Your task to perform on an android device: turn pop-ups off in chrome Image 0: 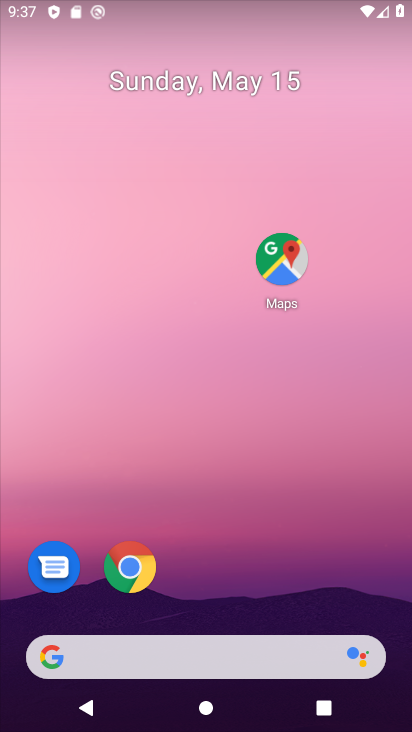
Step 0: click (129, 566)
Your task to perform on an android device: turn pop-ups off in chrome Image 1: 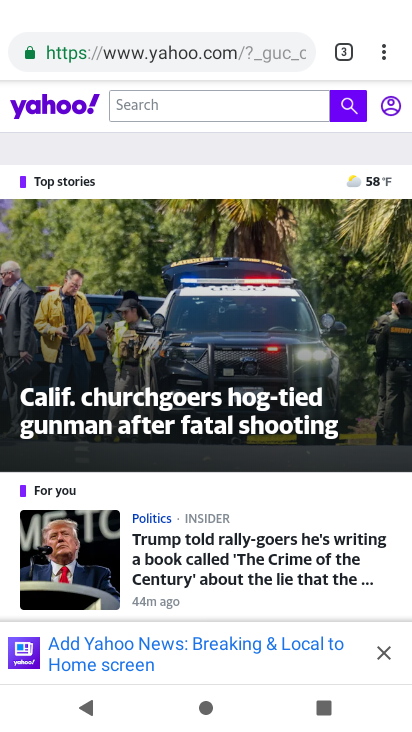
Step 1: click (376, 50)
Your task to perform on an android device: turn pop-ups off in chrome Image 2: 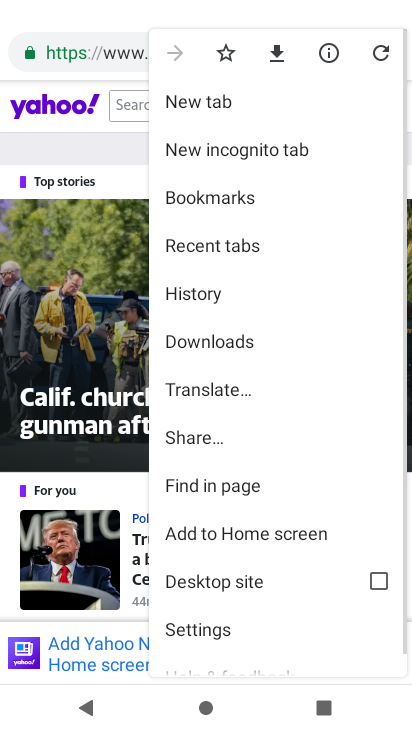
Step 2: click (223, 636)
Your task to perform on an android device: turn pop-ups off in chrome Image 3: 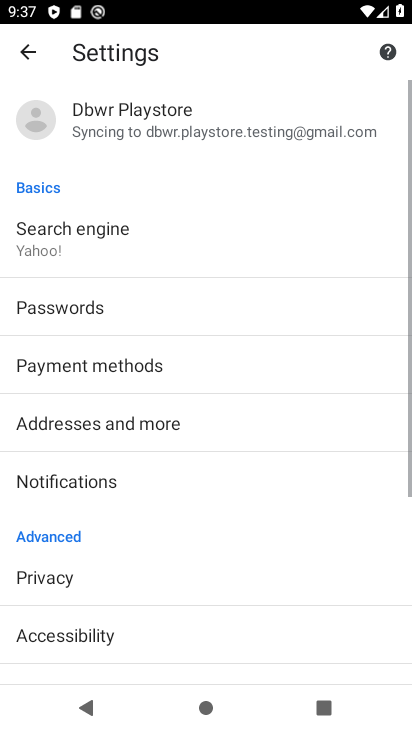
Step 3: drag from (210, 577) to (160, 250)
Your task to perform on an android device: turn pop-ups off in chrome Image 4: 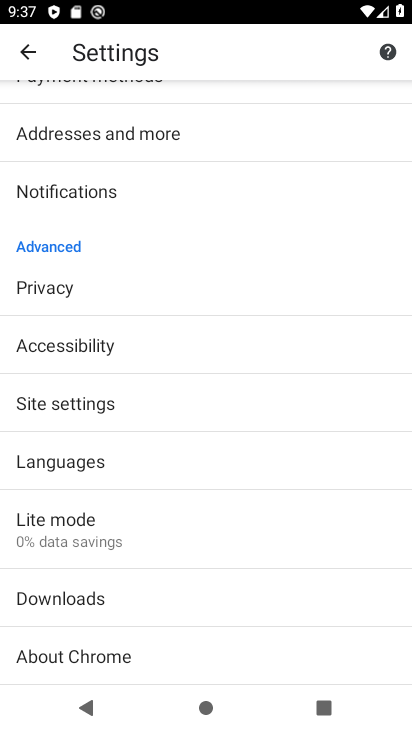
Step 4: click (121, 401)
Your task to perform on an android device: turn pop-ups off in chrome Image 5: 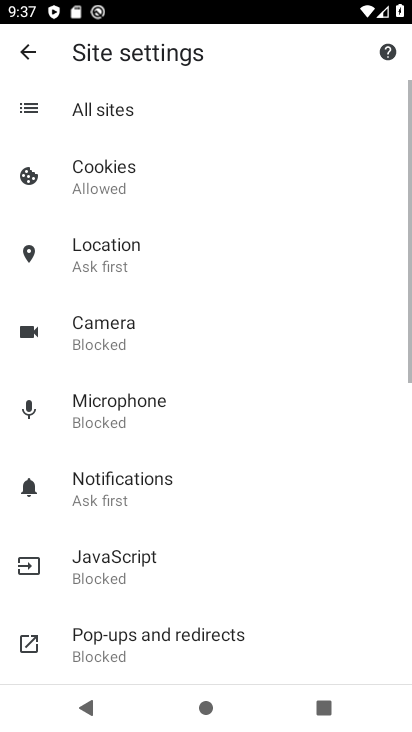
Step 5: click (156, 641)
Your task to perform on an android device: turn pop-ups off in chrome Image 6: 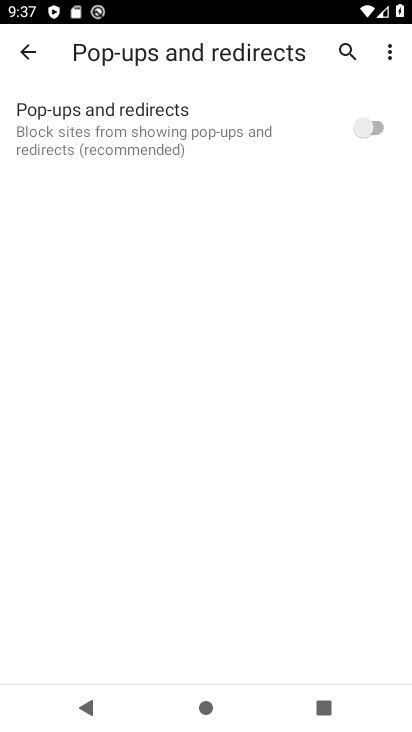
Step 6: task complete